Your task to perform on an android device: set an alarm Image 0: 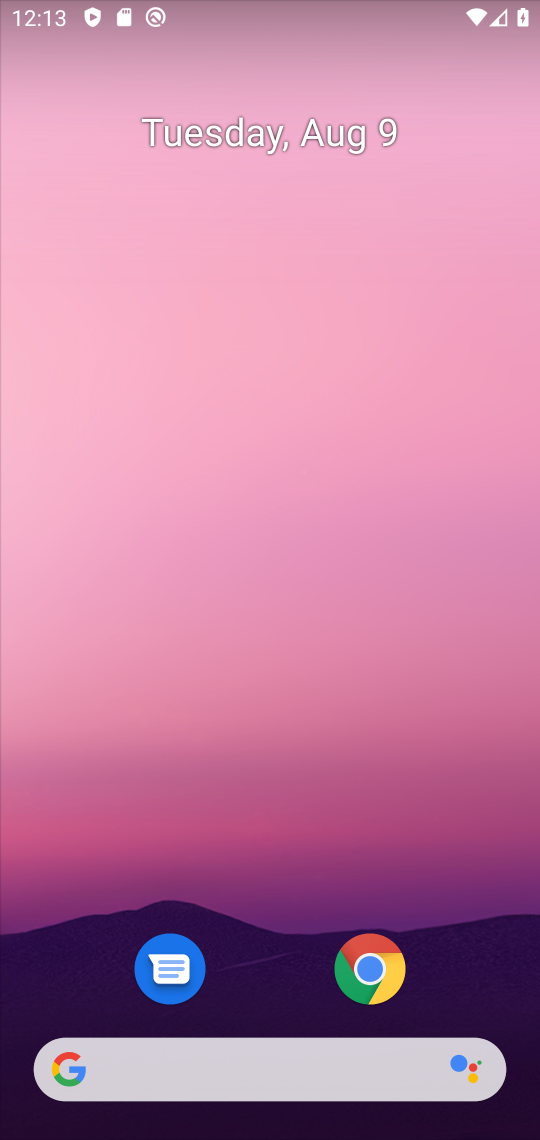
Step 0: drag from (283, 946) to (292, 781)
Your task to perform on an android device: set an alarm Image 1: 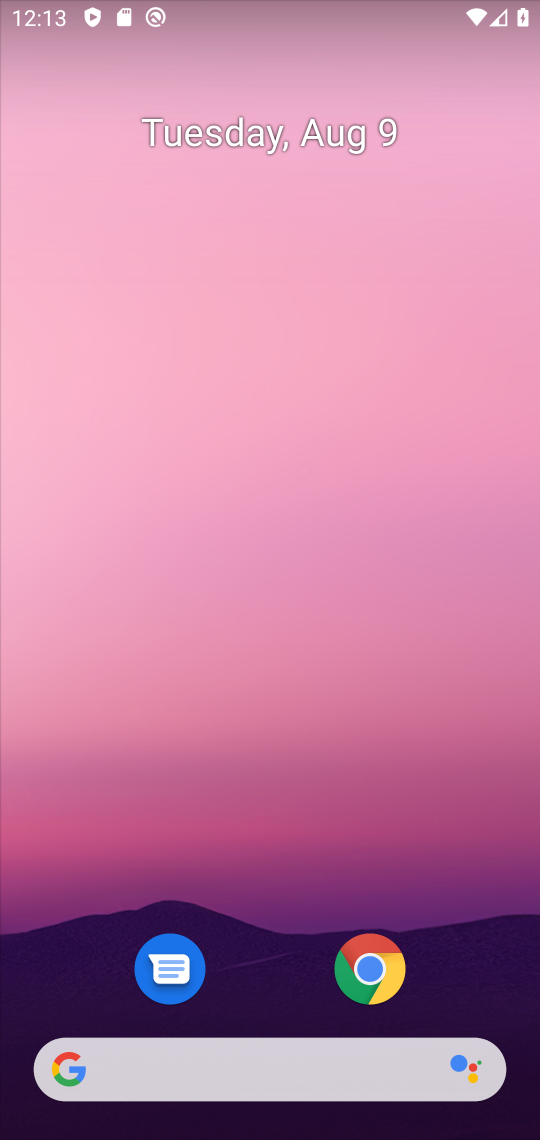
Step 1: drag from (326, 735) to (386, 214)
Your task to perform on an android device: set an alarm Image 2: 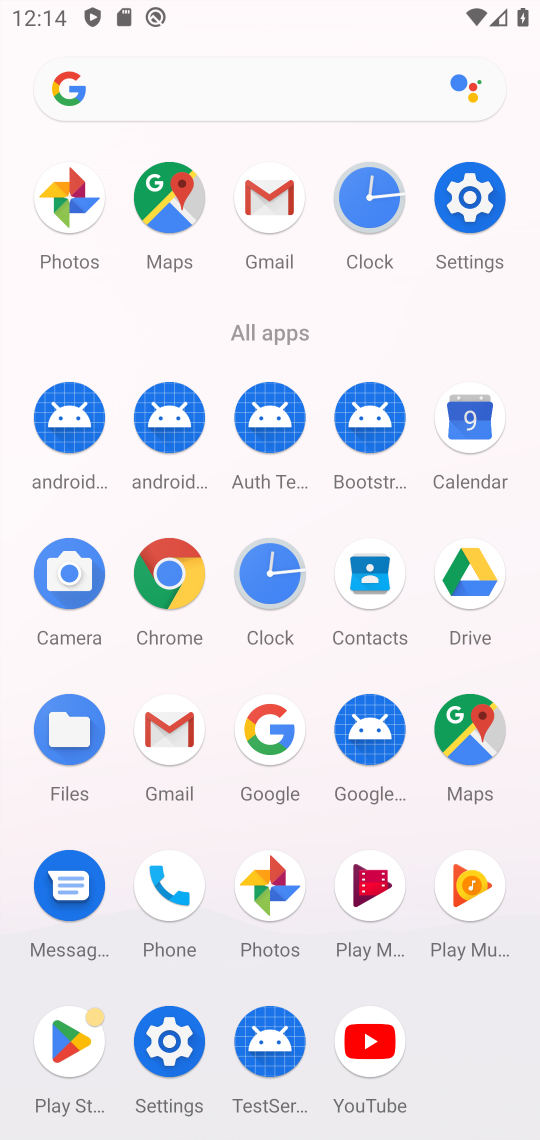
Step 2: click (276, 607)
Your task to perform on an android device: set an alarm Image 3: 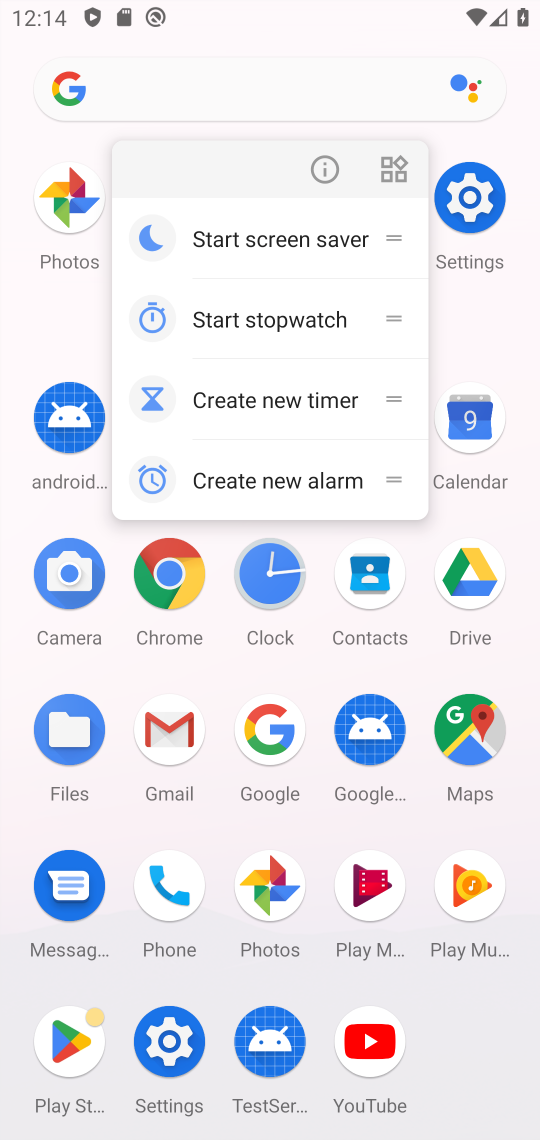
Step 3: click (326, 186)
Your task to perform on an android device: set an alarm Image 4: 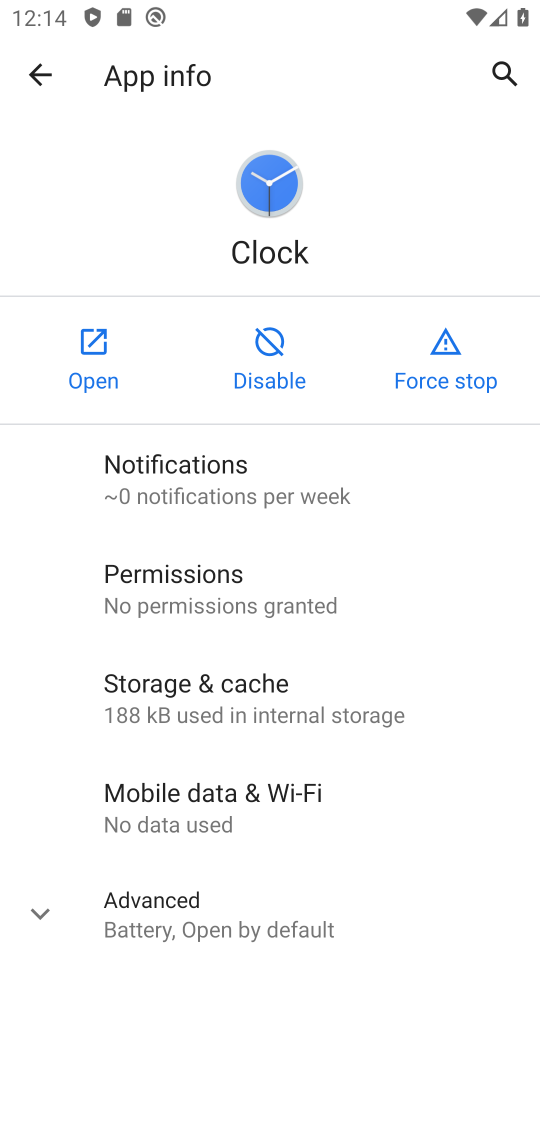
Step 4: click (89, 371)
Your task to perform on an android device: set an alarm Image 5: 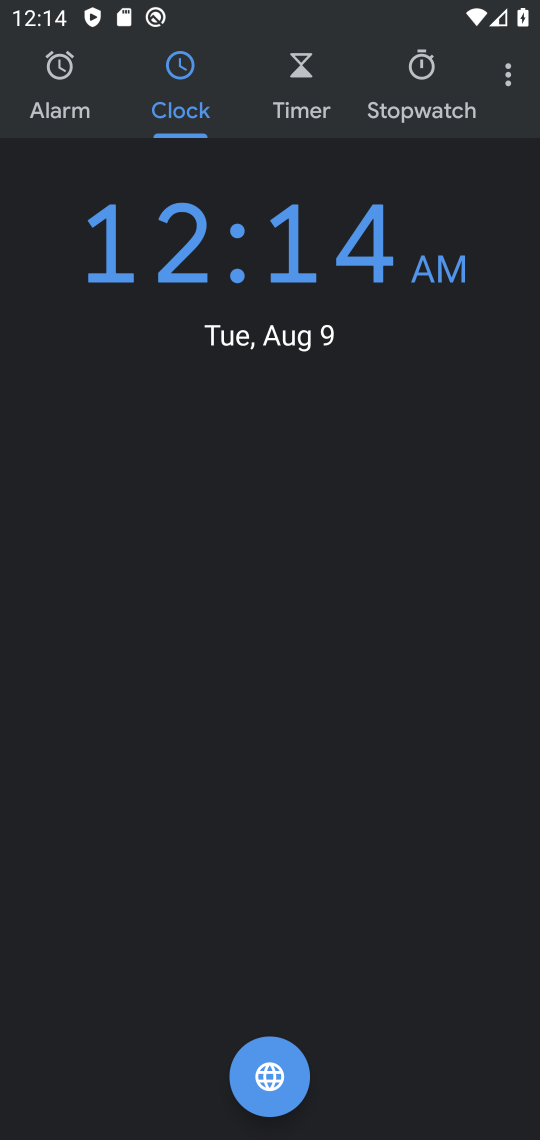
Step 5: click (30, 80)
Your task to perform on an android device: set an alarm Image 6: 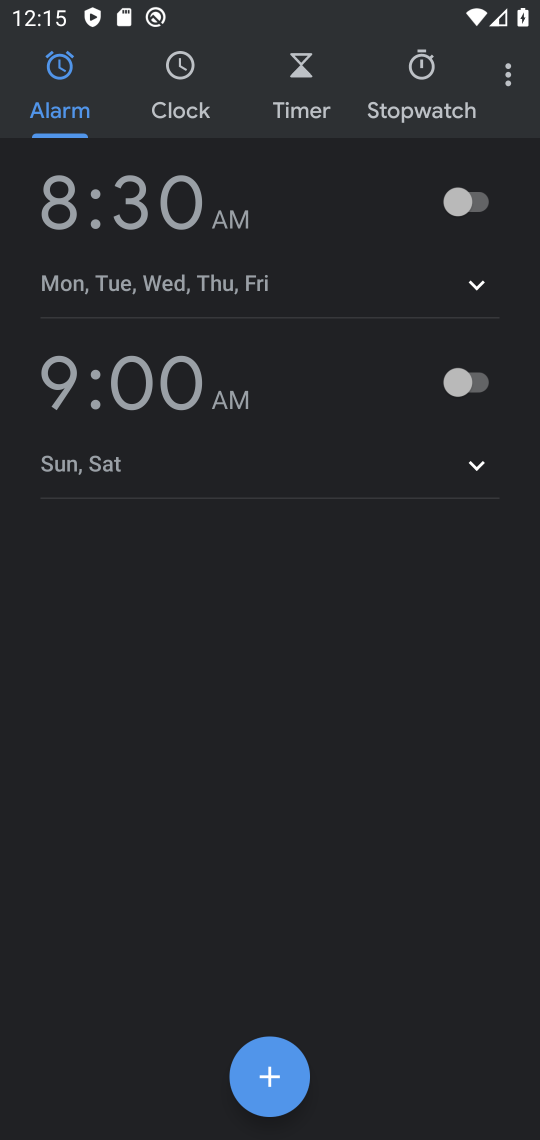
Step 6: click (447, 203)
Your task to perform on an android device: set an alarm Image 7: 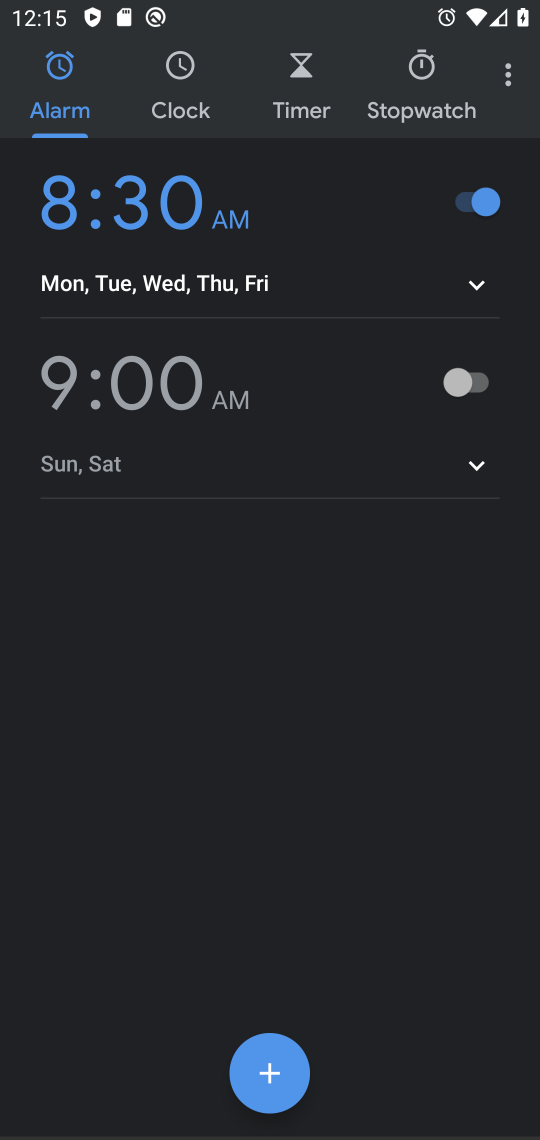
Step 7: task complete